Your task to perform on an android device: Go to eBay Image 0: 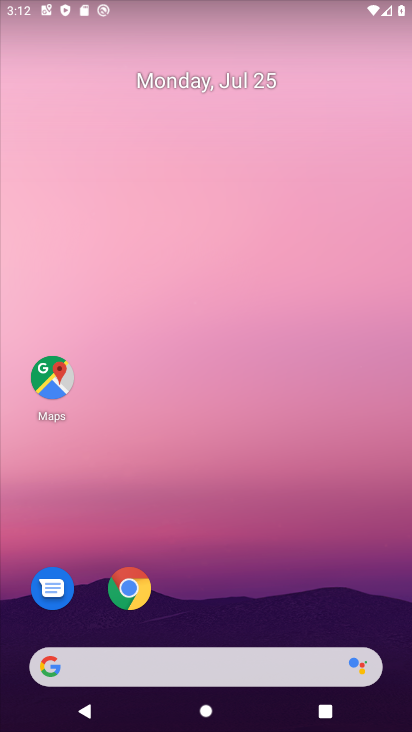
Step 0: click (122, 599)
Your task to perform on an android device: Go to eBay Image 1: 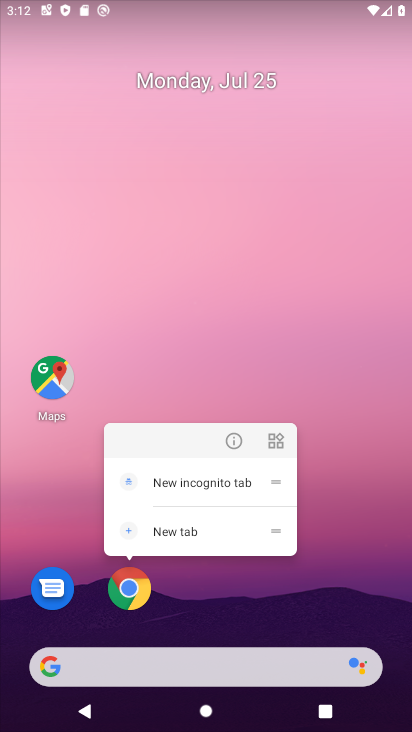
Step 1: click (128, 601)
Your task to perform on an android device: Go to eBay Image 2: 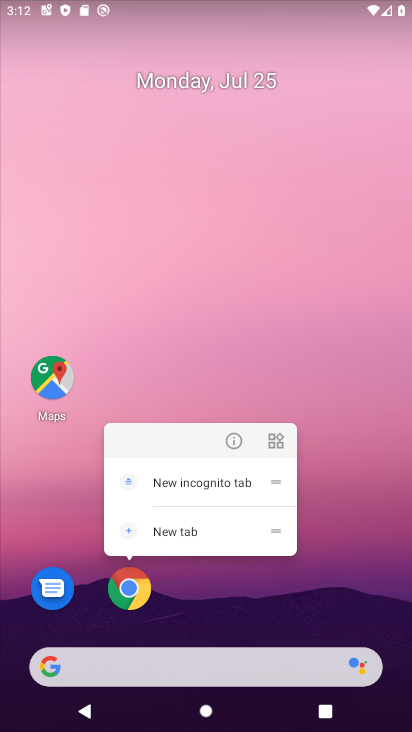
Step 2: click (128, 601)
Your task to perform on an android device: Go to eBay Image 3: 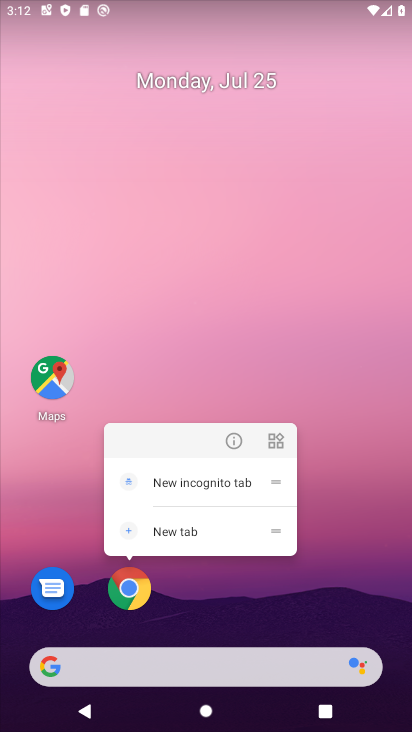
Step 3: click (128, 601)
Your task to perform on an android device: Go to eBay Image 4: 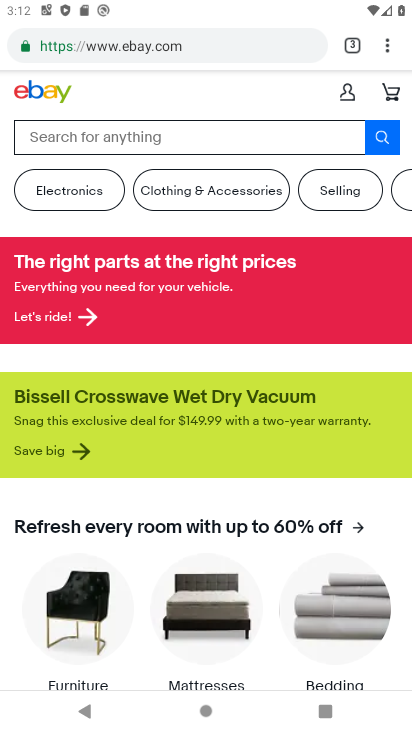
Step 4: task complete